Your task to perform on an android device: Do I have any events tomorrow? Image 0: 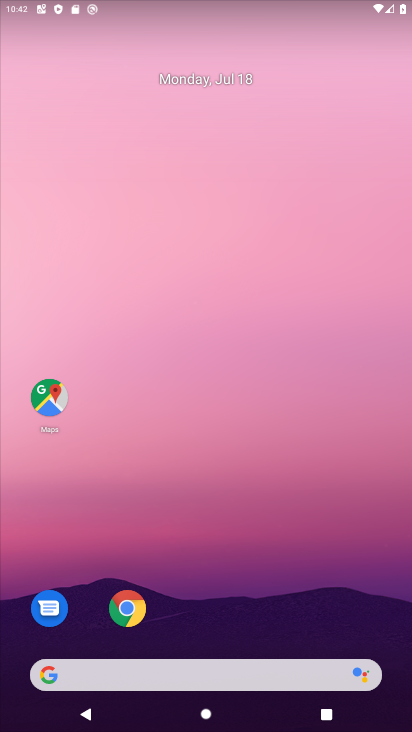
Step 0: drag from (211, 644) to (228, 84)
Your task to perform on an android device: Do I have any events tomorrow? Image 1: 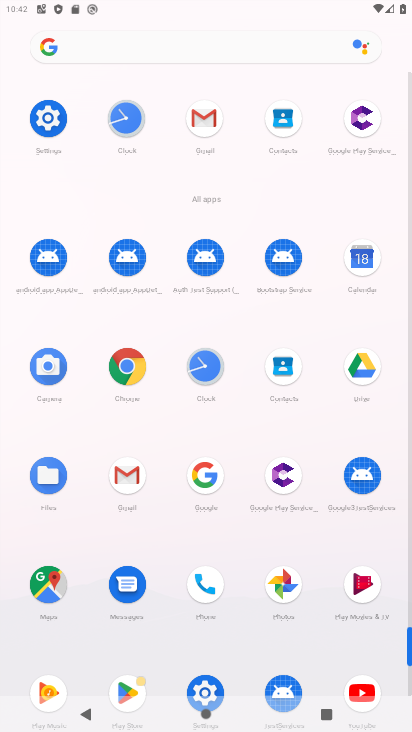
Step 1: click (365, 260)
Your task to perform on an android device: Do I have any events tomorrow? Image 2: 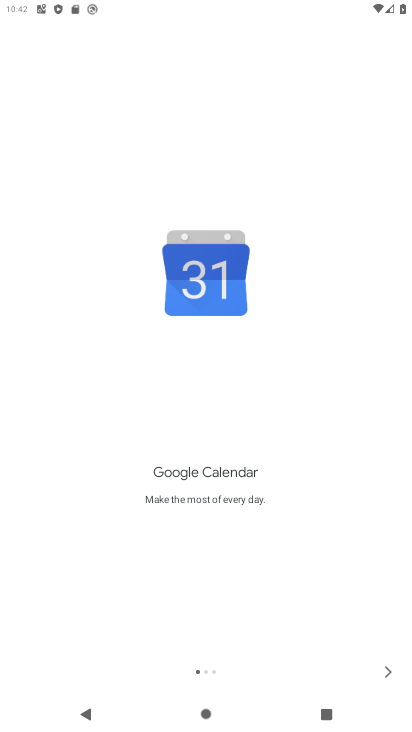
Step 2: click (387, 670)
Your task to perform on an android device: Do I have any events tomorrow? Image 3: 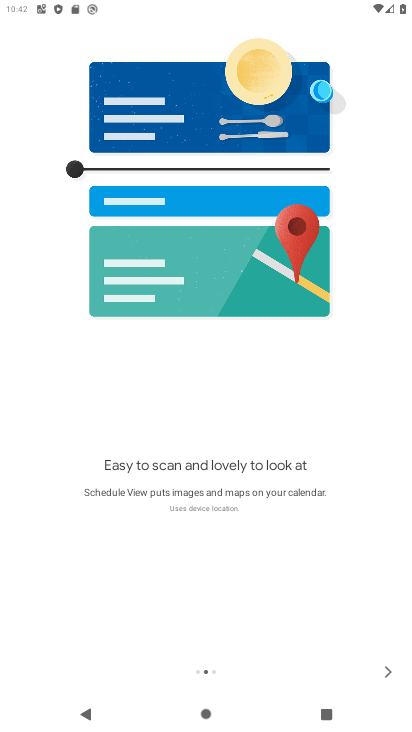
Step 3: click (377, 672)
Your task to perform on an android device: Do I have any events tomorrow? Image 4: 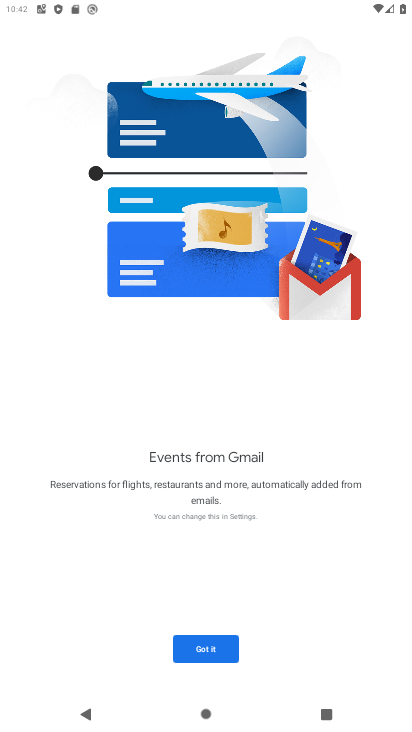
Step 4: click (211, 649)
Your task to perform on an android device: Do I have any events tomorrow? Image 5: 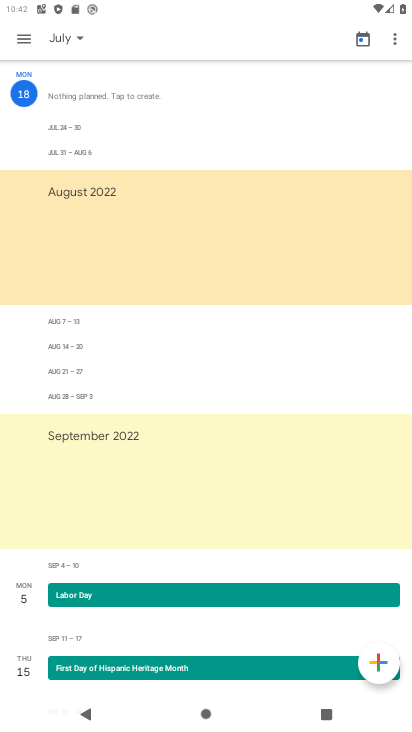
Step 5: click (25, 36)
Your task to perform on an android device: Do I have any events tomorrow? Image 6: 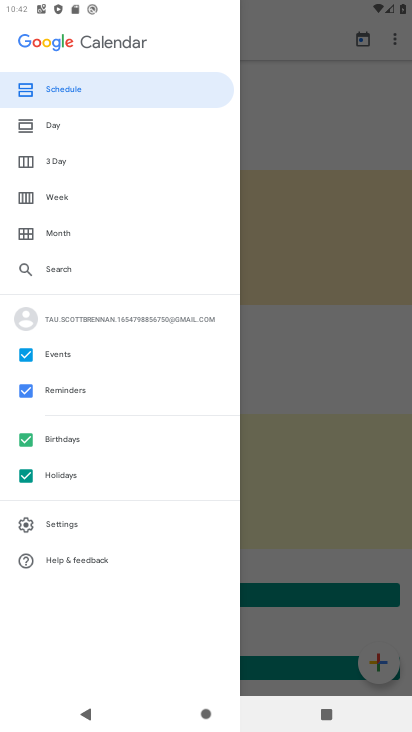
Step 6: click (64, 387)
Your task to perform on an android device: Do I have any events tomorrow? Image 7: 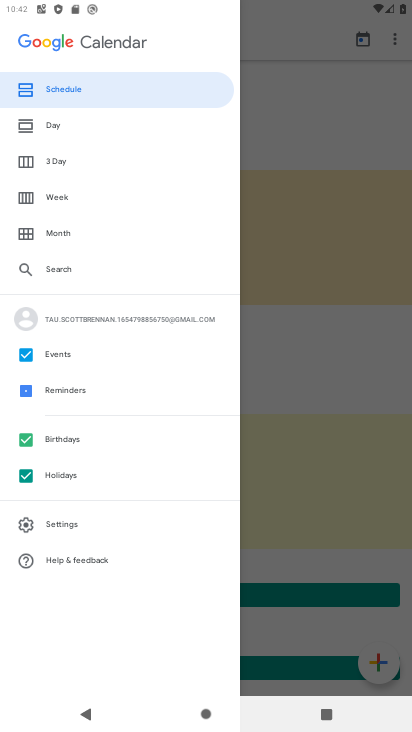
Step 7: click (55, 449)
Your task to perform on an android device: Do I have any events tomorrow? Image 8: 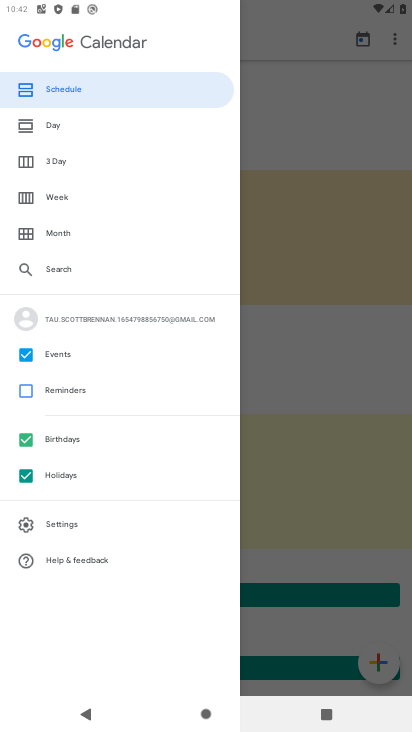
Step 8: click (55, 472)
Your task to perform on an android device: Do I have any events tomorrow? Image 9: 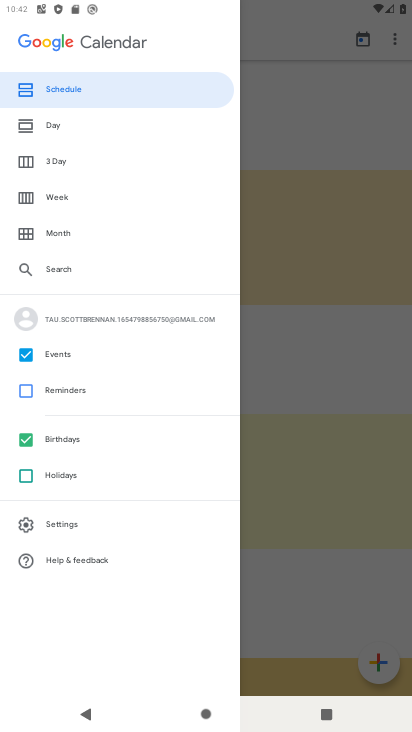
Step 9: click (62, 162)
Your task to perform on an android device: Do I have any events tomorrow? Image 10: 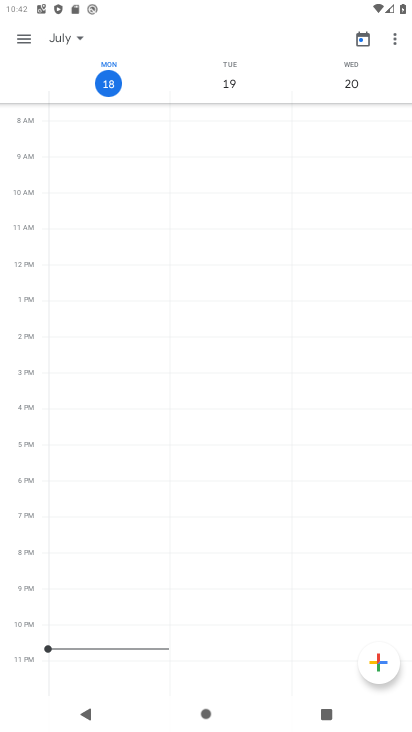
Step 10: click (21, 38)
Your task to perform on an android device: Do I have any events tomorrow? Image 11: 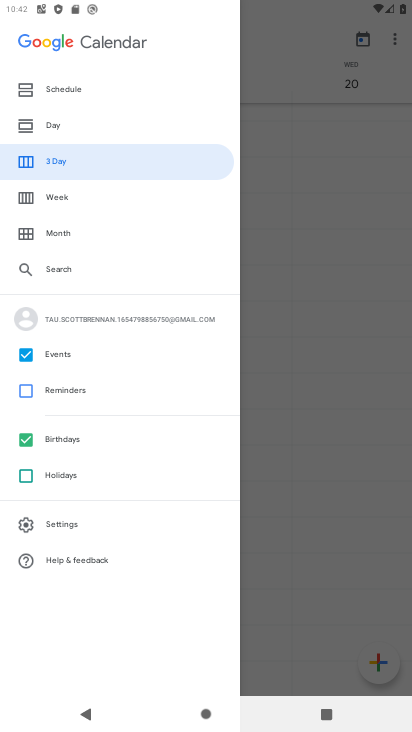
Step 11: click (48, 441)
Your task to perform on an android device: Do I have any events tomorrow? Image 12: 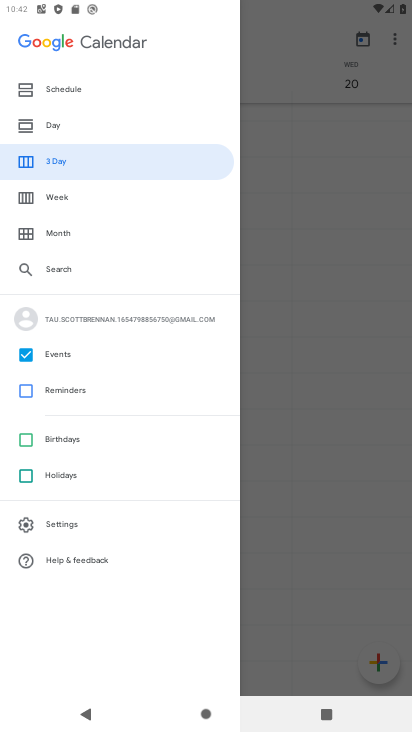
Step 12: click (87, 163)
Your task to perform on an android device: Do I have any events tomorrow? Image 13: 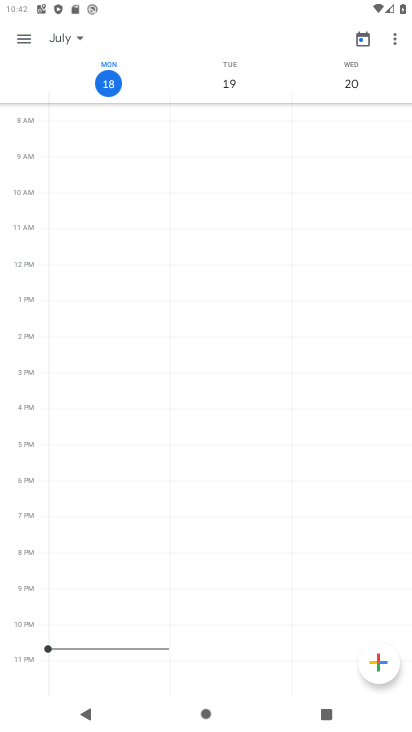
Step 13: task complete